Your task to perform on an android device: Open maps Image 0: 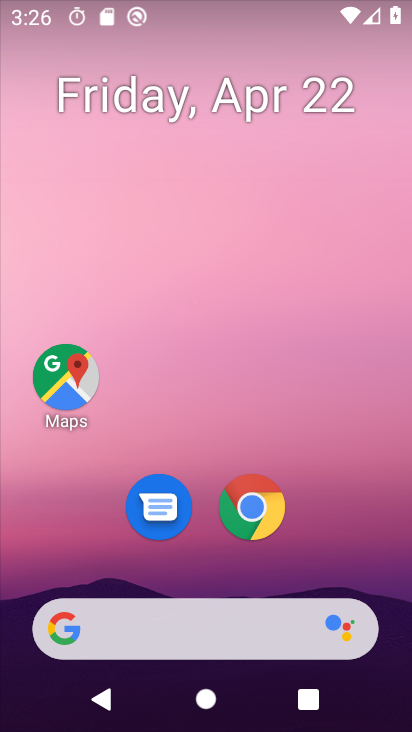
Step 0: drag from (315, 533) to (283, 65)
Your task to perform on an android device: Open maps Image 1: 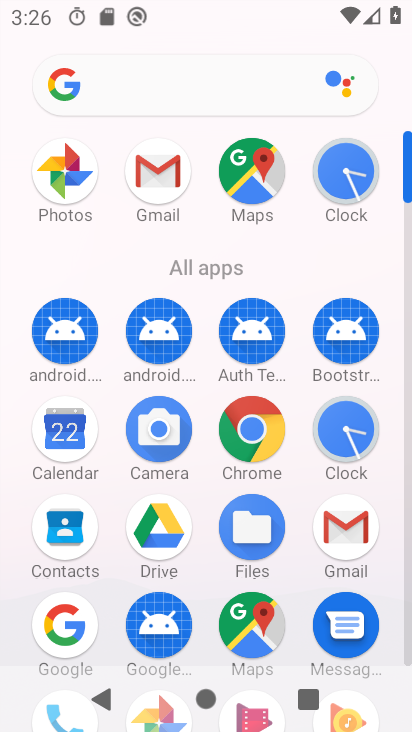
Step 1: click (253, 163)
Your task to perform on an android device: Open maps Image 2: 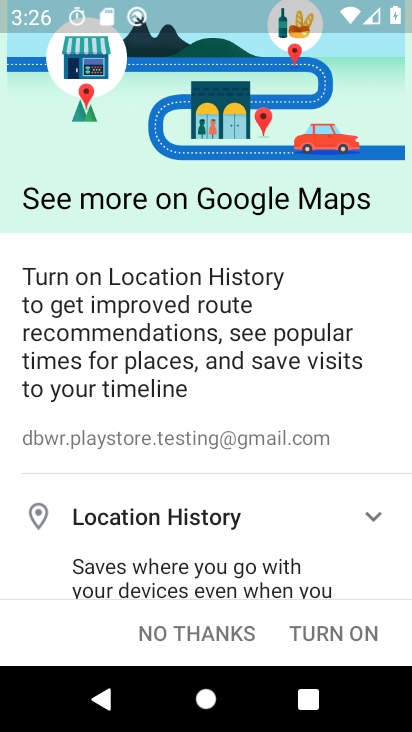
Step 2: click (171, 635)
Your task to perform on an android device: Open maps Image 3: 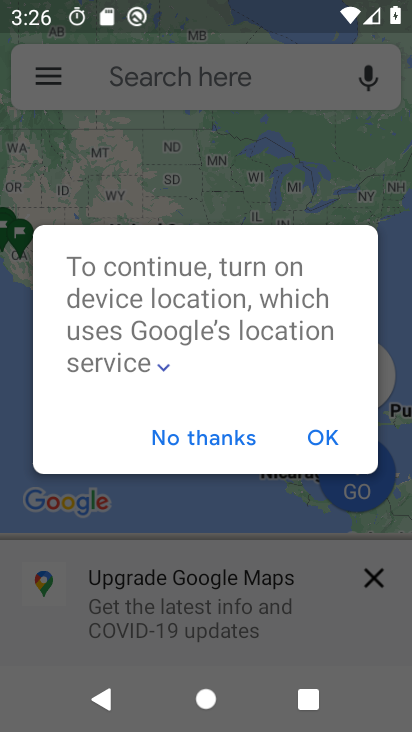
Step 3: click (206, 451)
Your task to perform on an android device: Open maps Image 4: 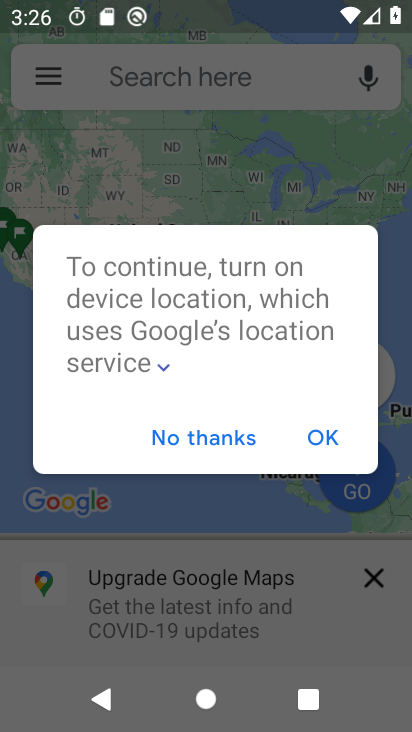
Step 4: task complete